Your task to perform on an android device: all mails in gmail Image 0: 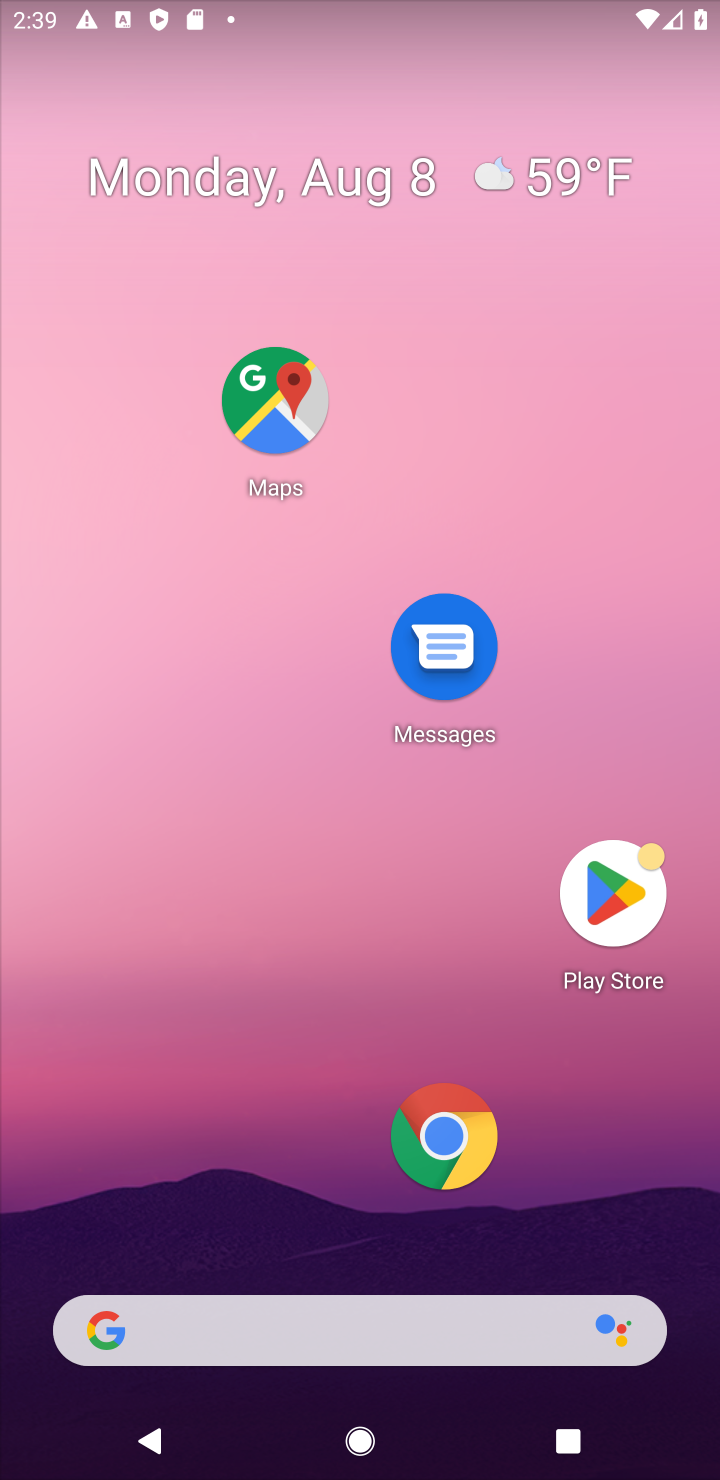
Step 0: task impossible